Your task to perform on an android device: What's the weather? Image 0: 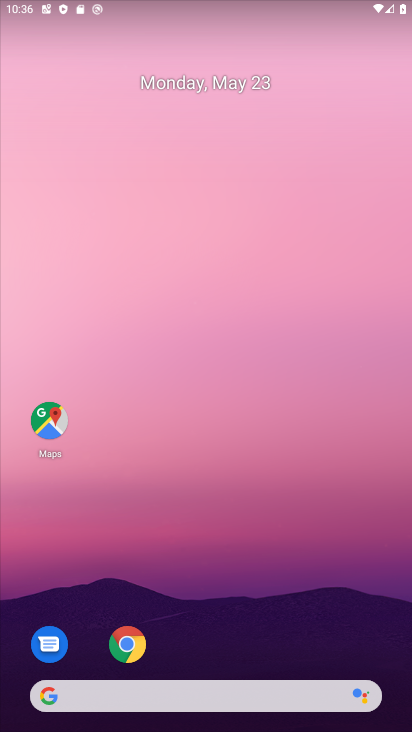
Step 0: drag from (34, 228) to (324, 549)
Your task to perform on an android device: What's the weather? Image 1: 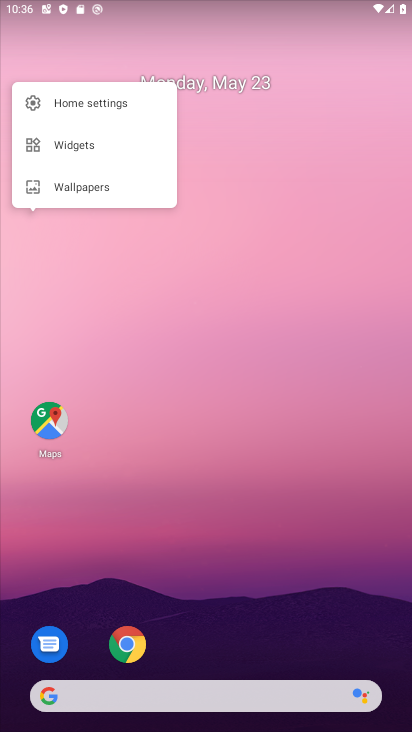
Step 1: click (102, 305)
Your task to perform on an android device: What's the weather? Image 2: 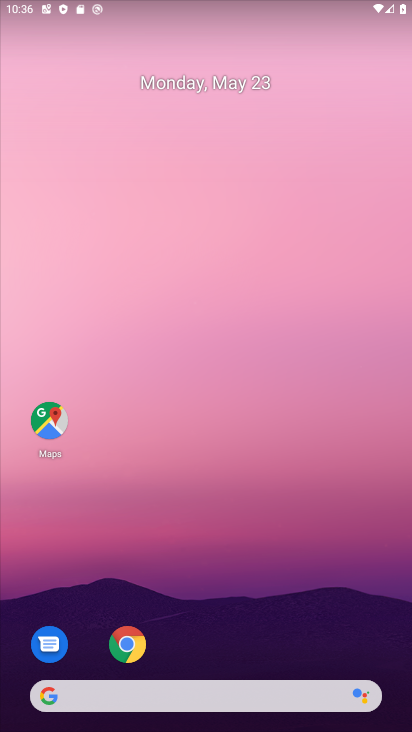
Step 2: click (105, 283)
Your task to perform on an android device: What's the weather? Image 3: 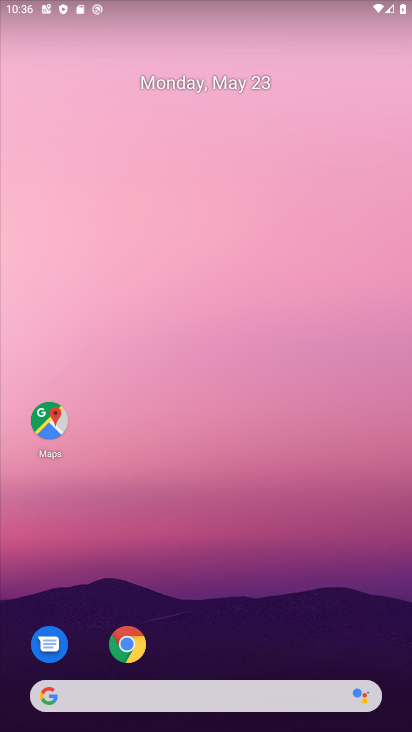
Step 3: drag from (0, 186) to (376, 510)
Your task to perform on an android device: What's the weather? Image 4: 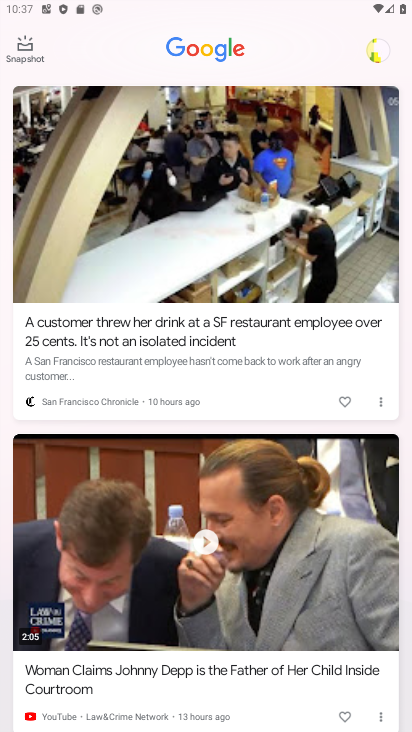
Step 4: drag from (167, 311) to (147, 489)
Your task to perform on an android device: What's the weather? Image 5: 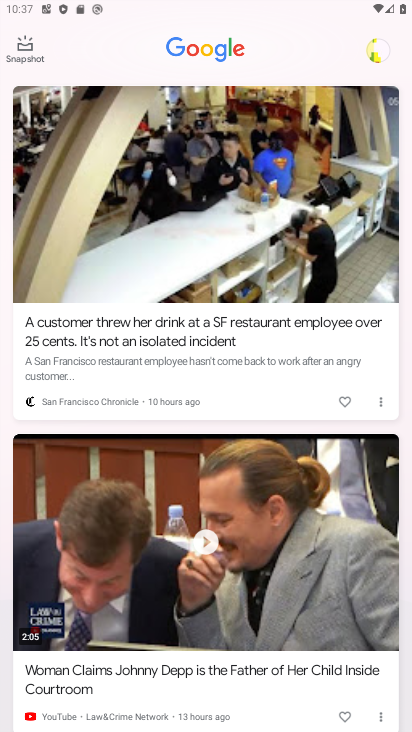
Step 5: drag from (205, 339) to (265, 628)
Your task to perform on an android device: What's the weather? Image 6: 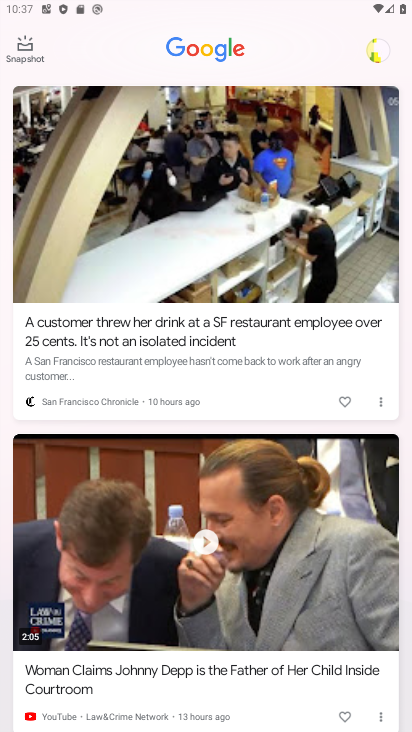
Step 6: drag from (197, 268) to (206, 470)
Your task to perform on an android device: What's the weather? Image 7: 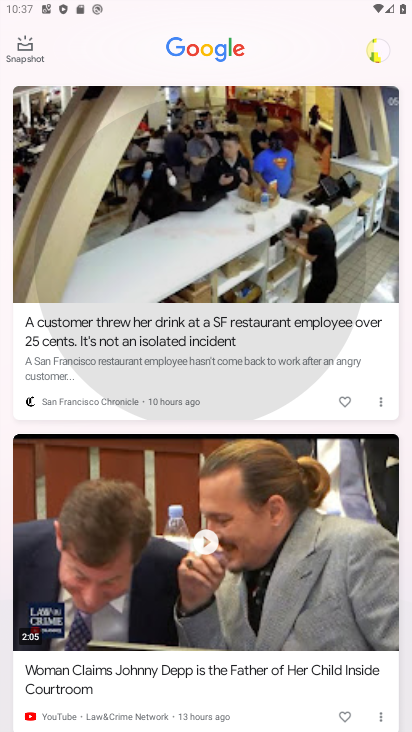
Step 7: drag from (156, 203) to (148, 525)
Your task to perform on an android device: What's the weather? Image 8: 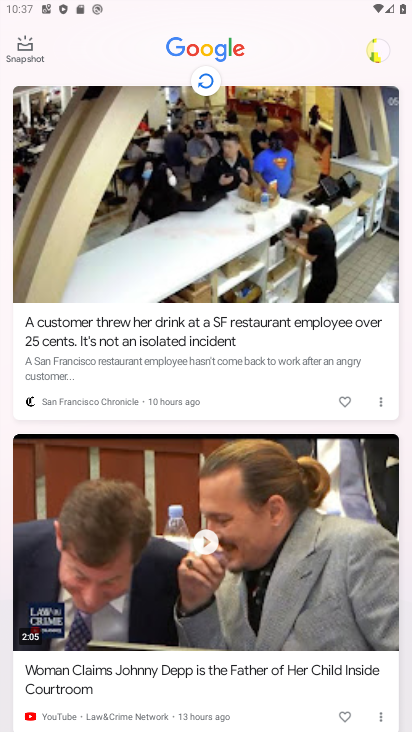
Step 8: drag from (162, 396) to (177, 601)
Your task to perform on an android device: What's the weather? Image 9: 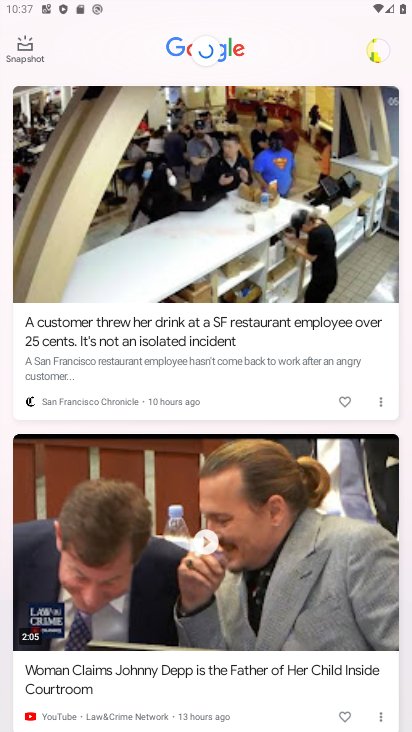
Step 9: drag from (142, 241) to (181, 667)
Your task to perform on an android device: What's the weather? Image 10: 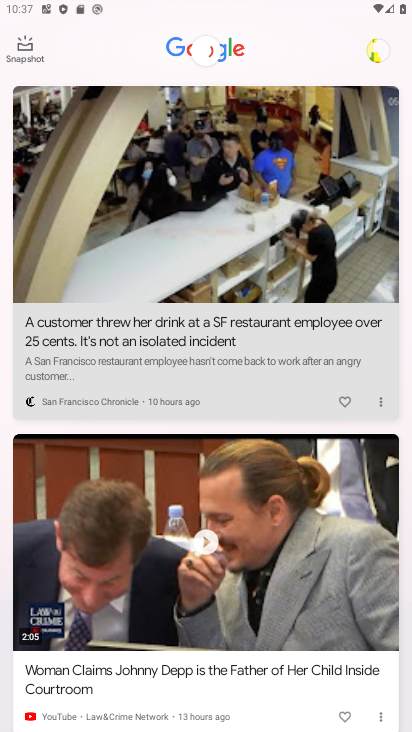
Step 10: drag from (139, 315) to (168, 652)
Your task to perform on an android device: What's the weather? Image 11: 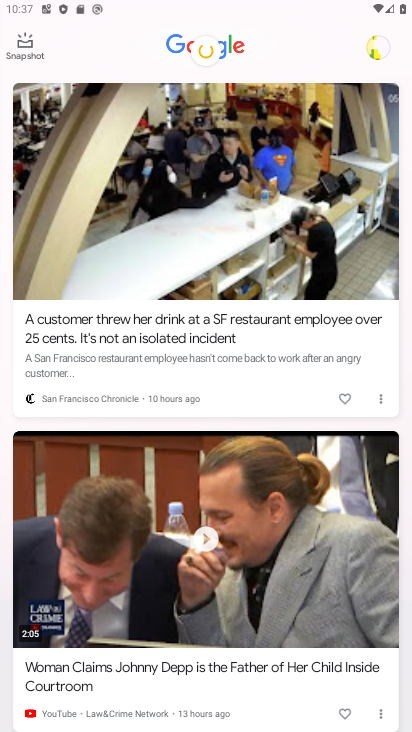
Step 11: drag from (186, 701) to (209, 639)
Your task to perform on an android device: What's the weather? Image 12: 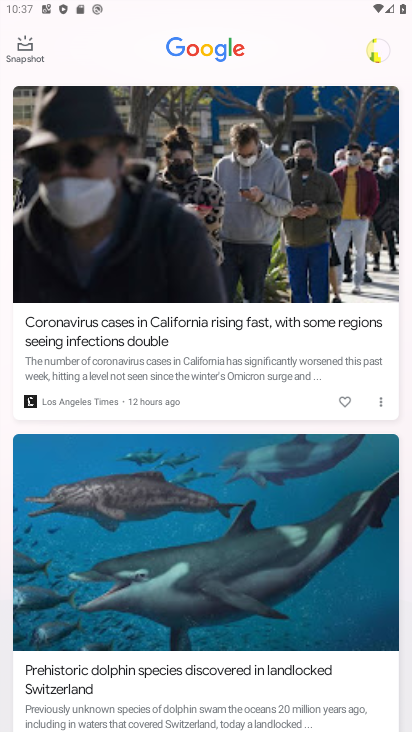
Step 12: click (170, 621)
Your task to perform on an android device: What's the weather? Image 13: 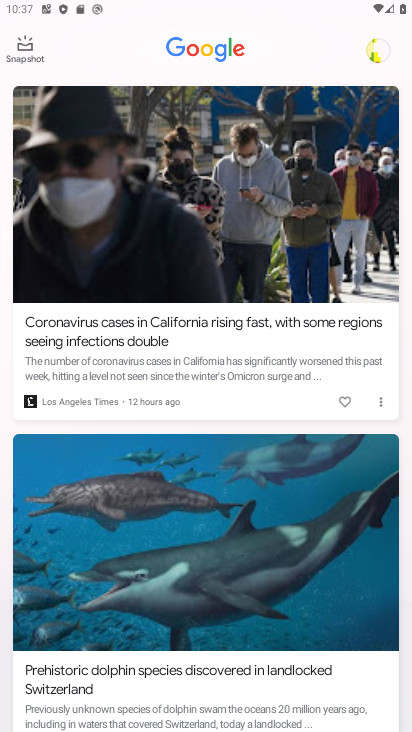
Step 13: drag from (131, 300) to (186, 587)
Your task to perform on an android device: What's the weather? Image 14: 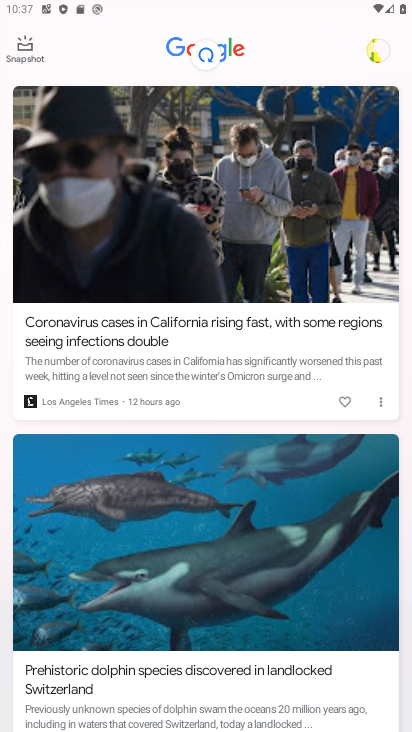
Step 14: click (194, 601)
Your task to perform on an android device: What's the weather? Image 15: 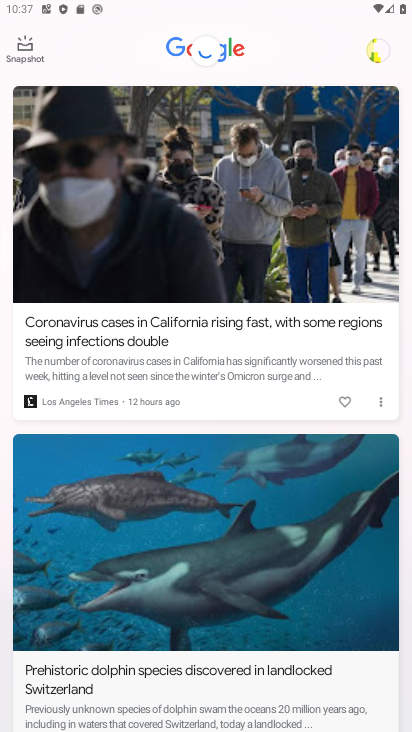
Step 15: click (182, 642)
Your task to perform on an android device: What's the weather? Image 16: 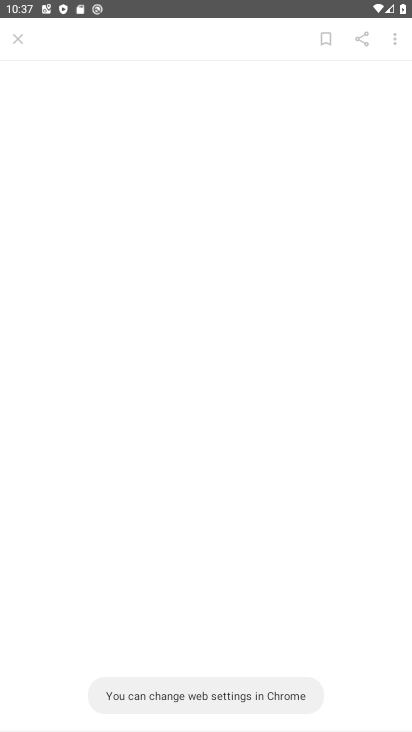
Step 16: task complete